Your task to perform on an android device: check google app version Image 0: 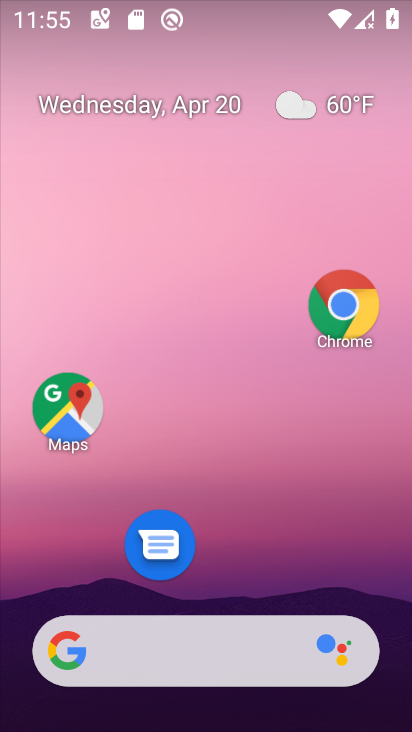
Step 0: drag from (212, 637) to (218, 92)
Your task to perform on an android device: check google app version Image 1: 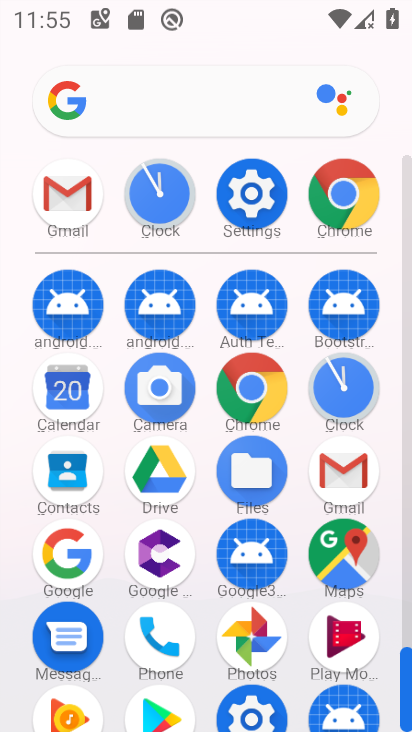
Step 1: drag from (273, 484) to (231, 195)
Your task to perform on an android device: check google app version Image 2: 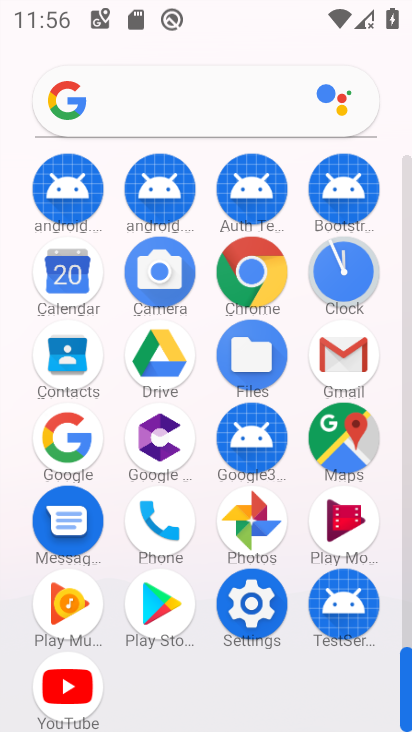
Step 2: click (74, 433)
Your task to perform on an android device: check google app version Image 3: 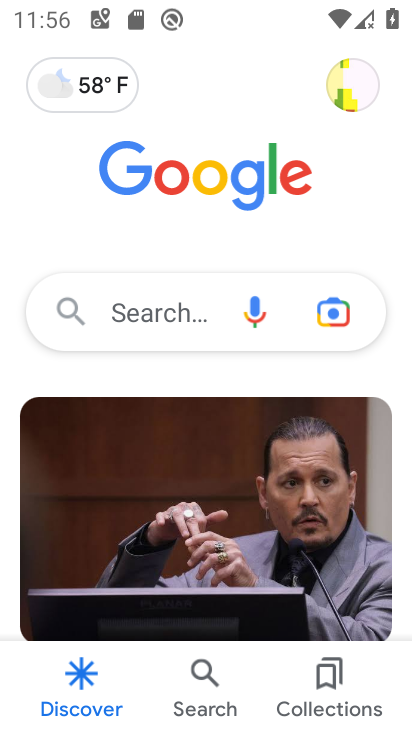
Step 3: drag from (333, 703) to (409, 353)
Your task to perform on an android device: check google app version Image 4: 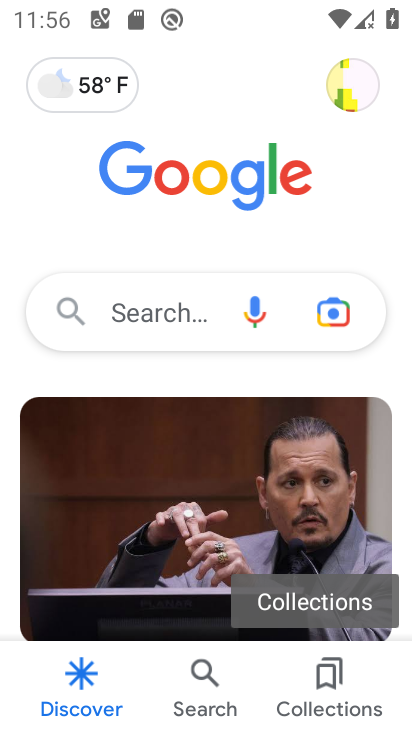
Step 4: click (344, 104)
Your task to perform on an android device: check google app version Image 5: 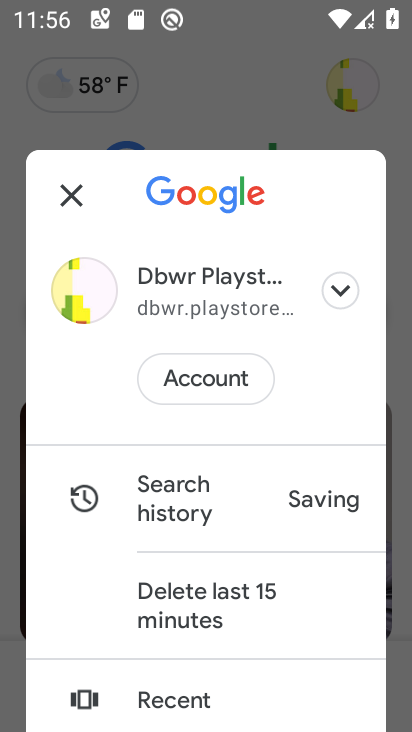
Step 5: drag from (238, 561) to (250, 200)
Your task to perform on an android device: check google app version Image 6: 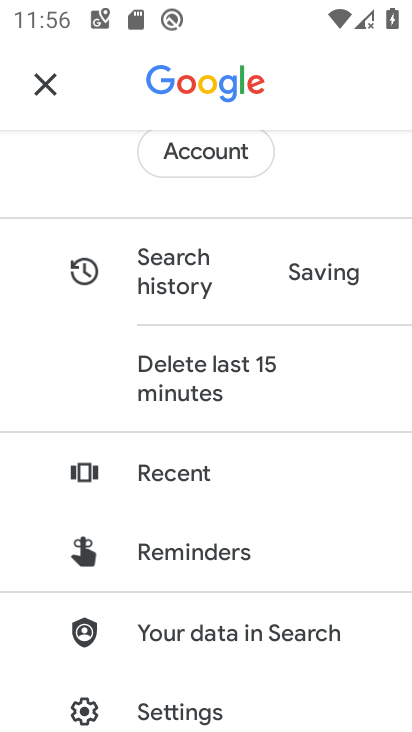
Step 6: click (189, 714)
Your task to perform on an android device: check google app version Image 7: 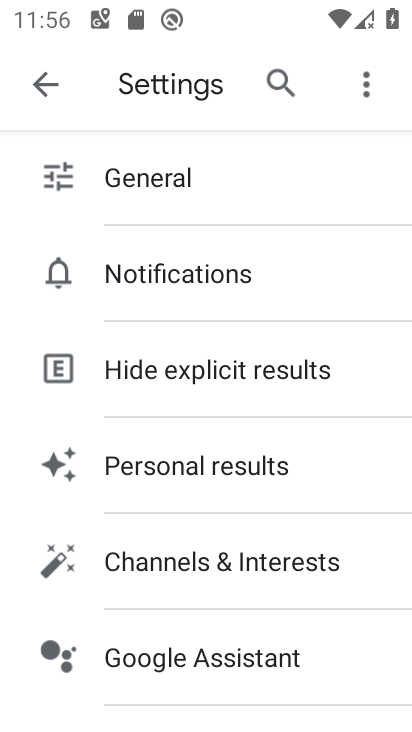
Step 7: drag from (233, 355) to (385, 672)
Your task to perform on an android device: check google app version Image 8: 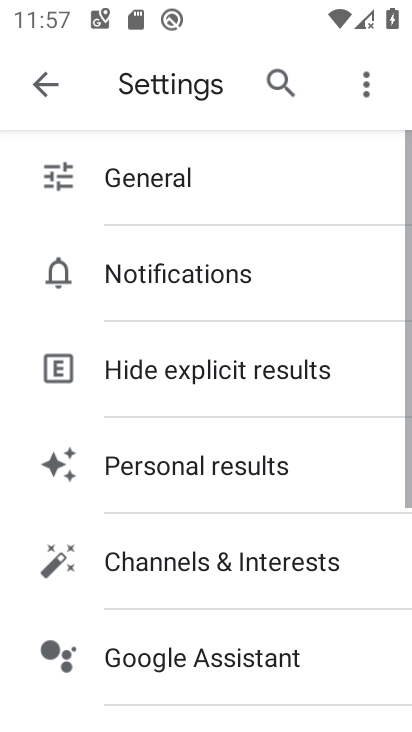
Step 8: click (369, 673)
Your task to perform on an android device: check google app version Image 9: 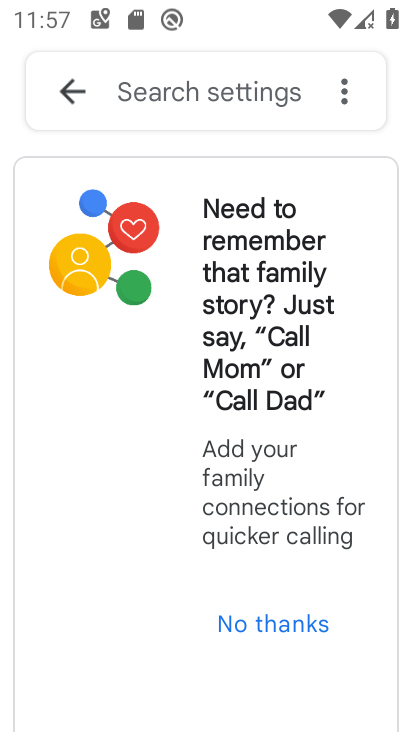
Step 9: task complete